Your task to perform on an android device: Set the phone to "Do not disturb". Image 0: 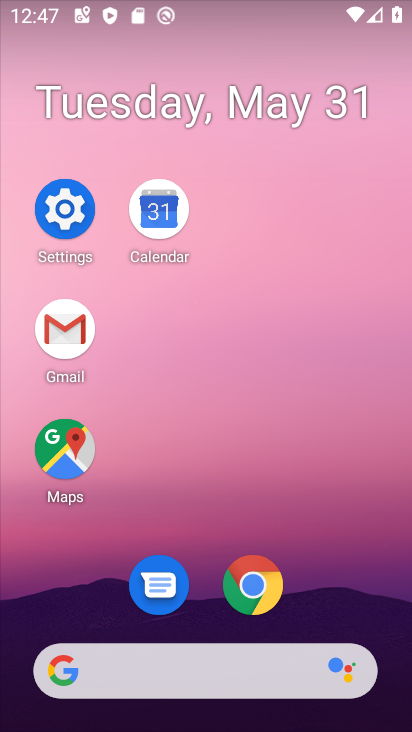
Step 0: click (90, 209)
Your task to perform on an android device: Set the phone to "Do not disturb". Image 1: 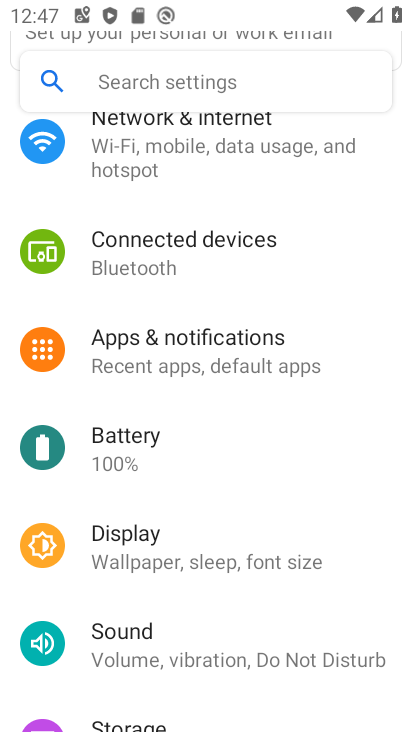
Step 1: click (249, 649)
Your task to perform on an android device: Set the phone to "Do not disturb". Image 2: 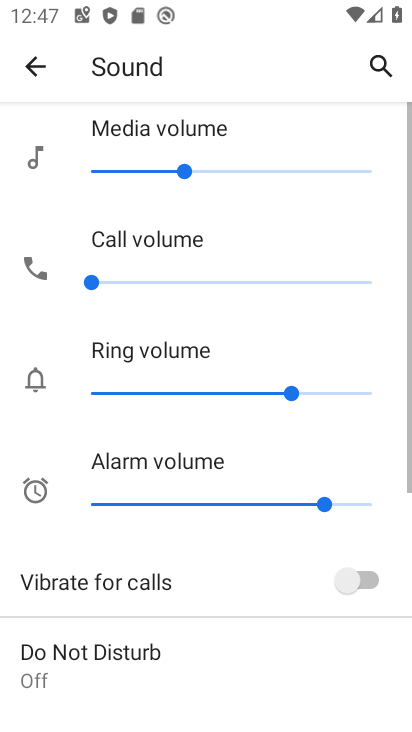
Step 2: drag from (249, 571) to (244, 233)
Your task to perform on an android device: Set the phone to "Do not disturb". Image 3: 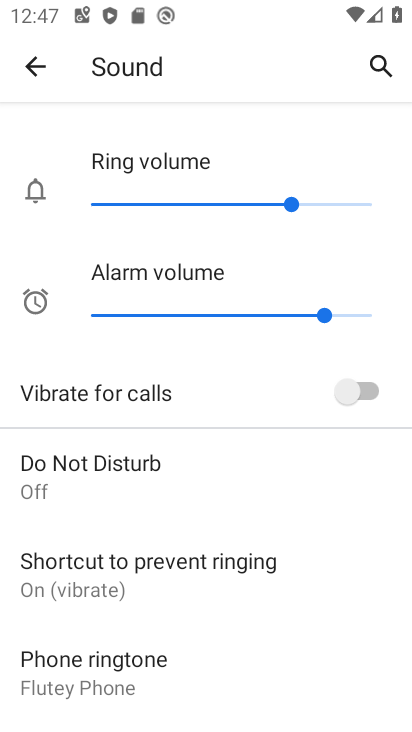
Step 3: click (166, 481)
Your task to perform on an android device: Set the phone to "Do not disturb". Image 4: 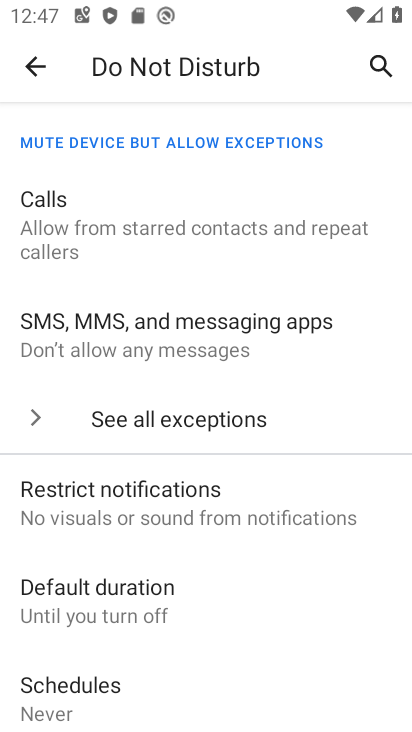
Step 4: drag from (208, 680) to (241, 286)
Your task to perform on an android device: Set the phone to "Do not disturb". Image 5: 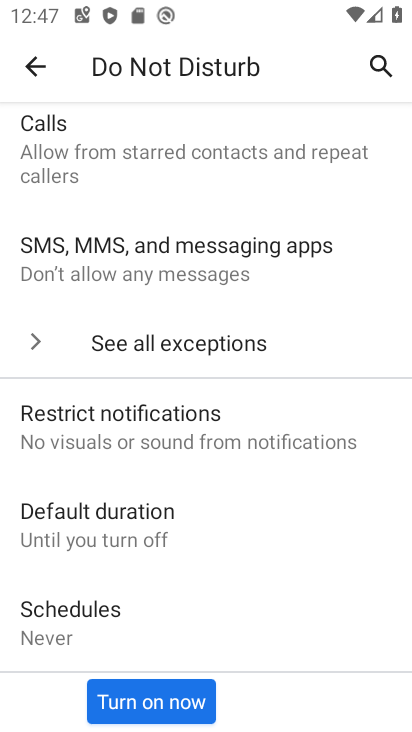
Step 5: click (223, 687)
Your task to perform on an android device: Set the phone to "Do not disturb". Image 6: 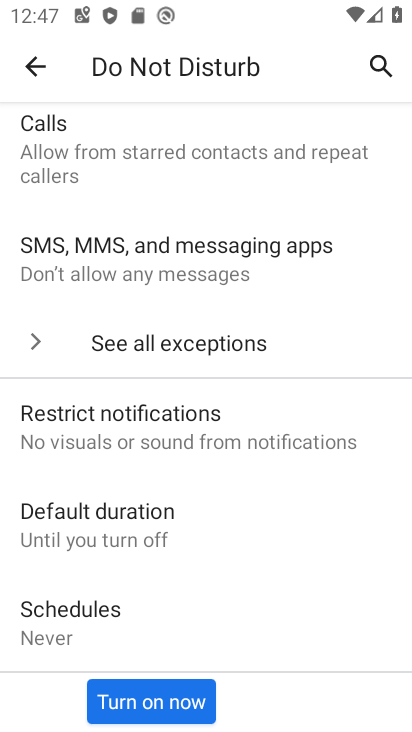
Step 6: click (200, 700)
Your task to perform on an android device: Set the phone to "Do not disturb". Image 7: 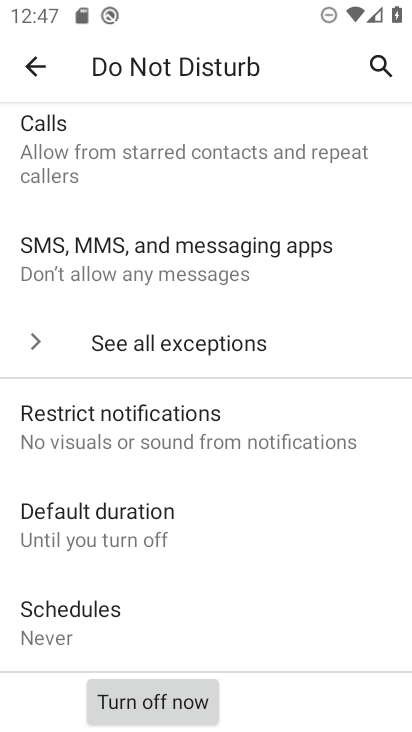
Step 7: task complete